Your task to perform on an android device: Go to settings Image 0: 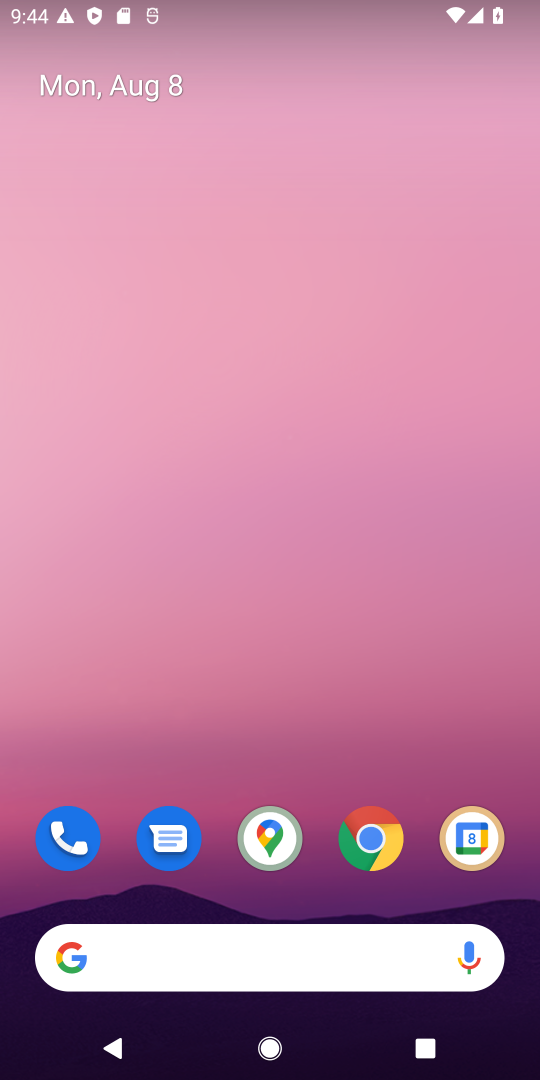
Step 0: drag from (326, 899) to (349, 159)
Your task to perform on an android device: Go to settings Image 1: 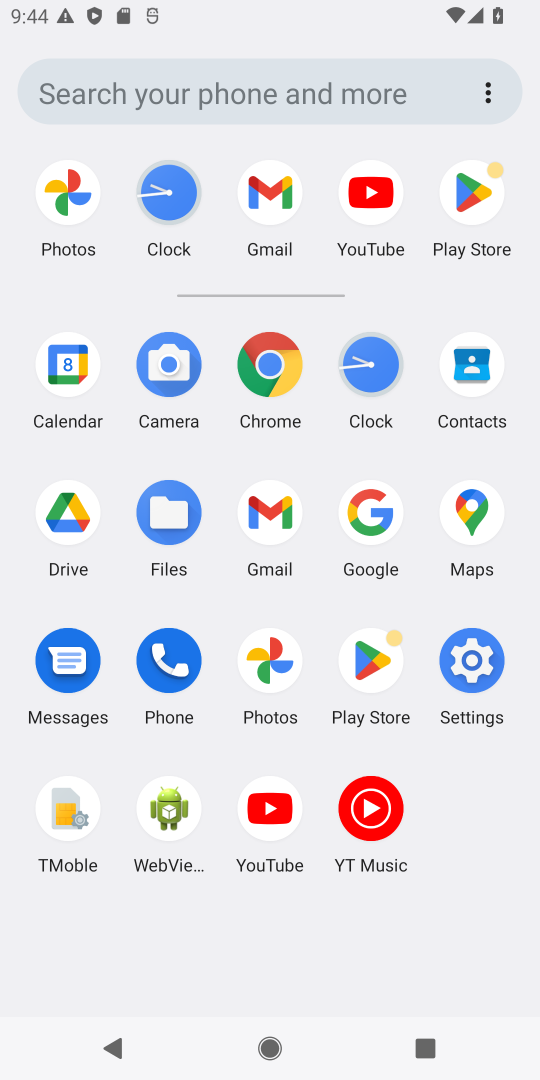
Step 1: click (476, 668)
Your task to perform on an android device: Go to settings Image 2: 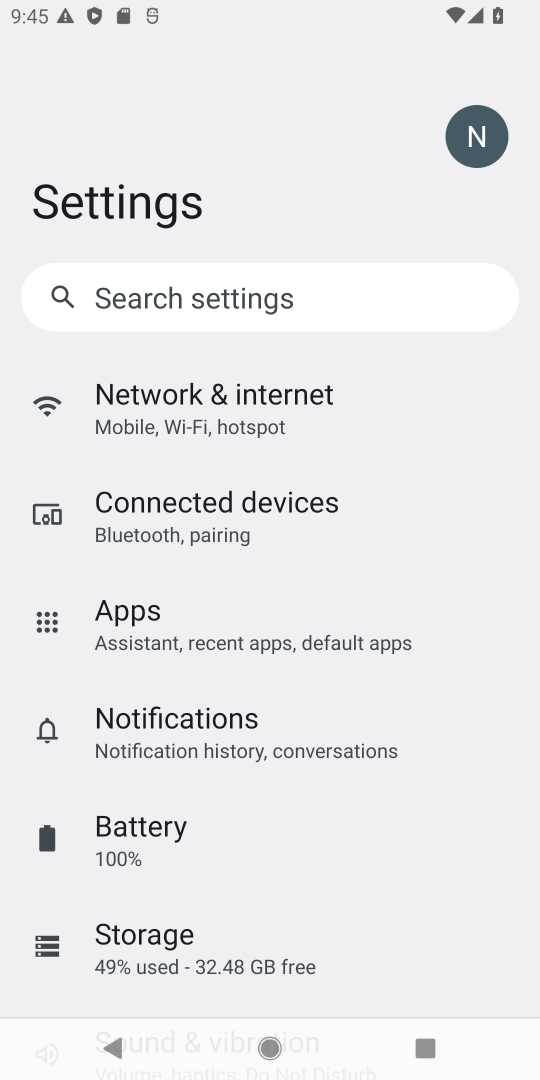
Step 2: task complete